Your task to perform on an android device: Open sound settings Image 0: 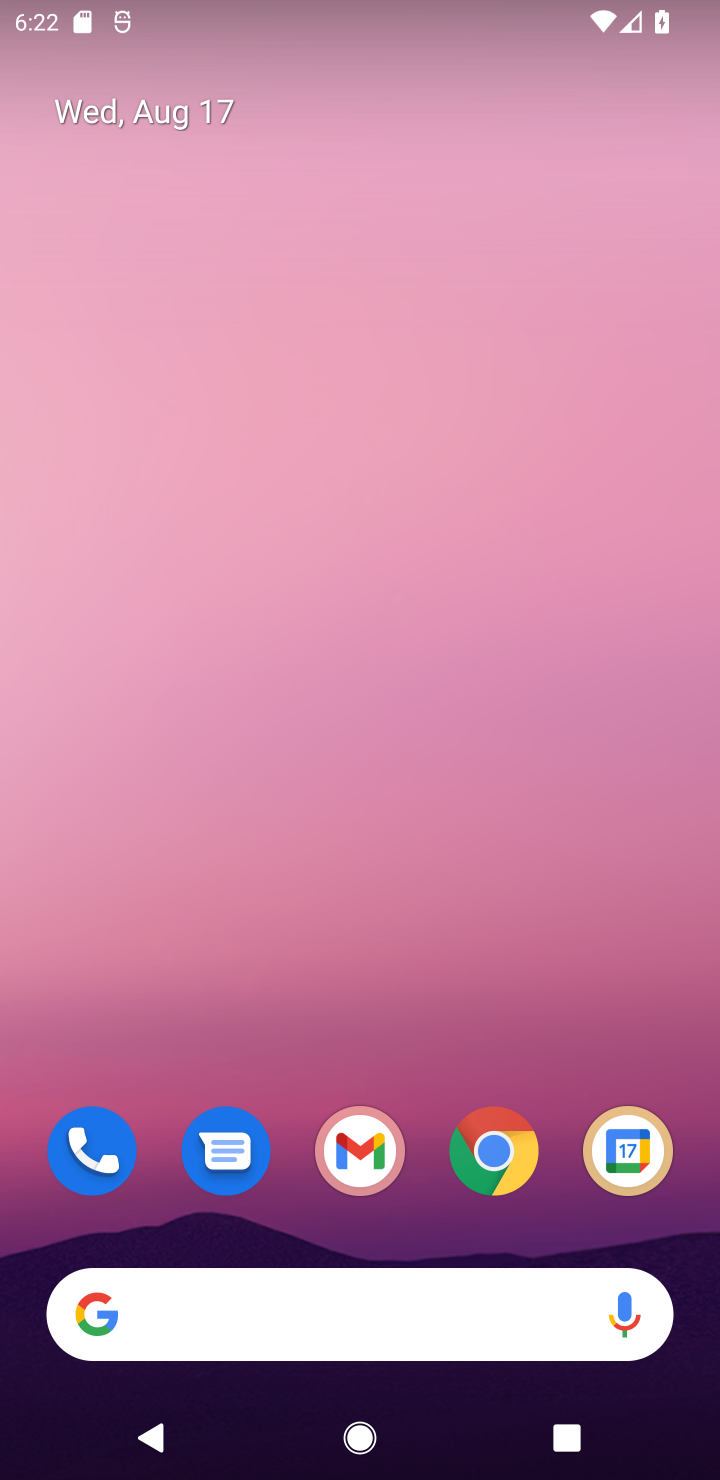
Step 0: drag from (422, 1206) to (399, 70)
Your task to perform on an android device: Open sound settings Image 1: 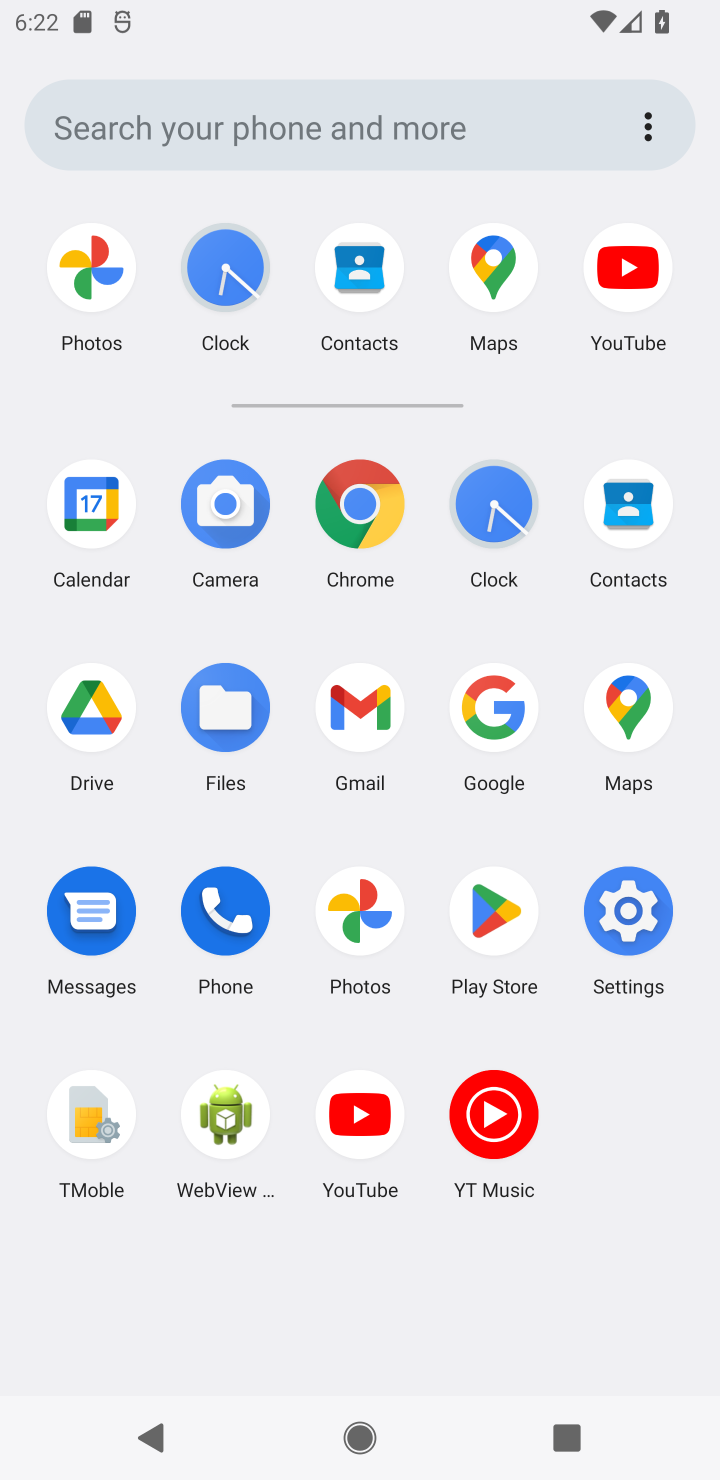
Step 1: click (661, 955)
Your task to perform on an android device: Open sound settings Image 2: 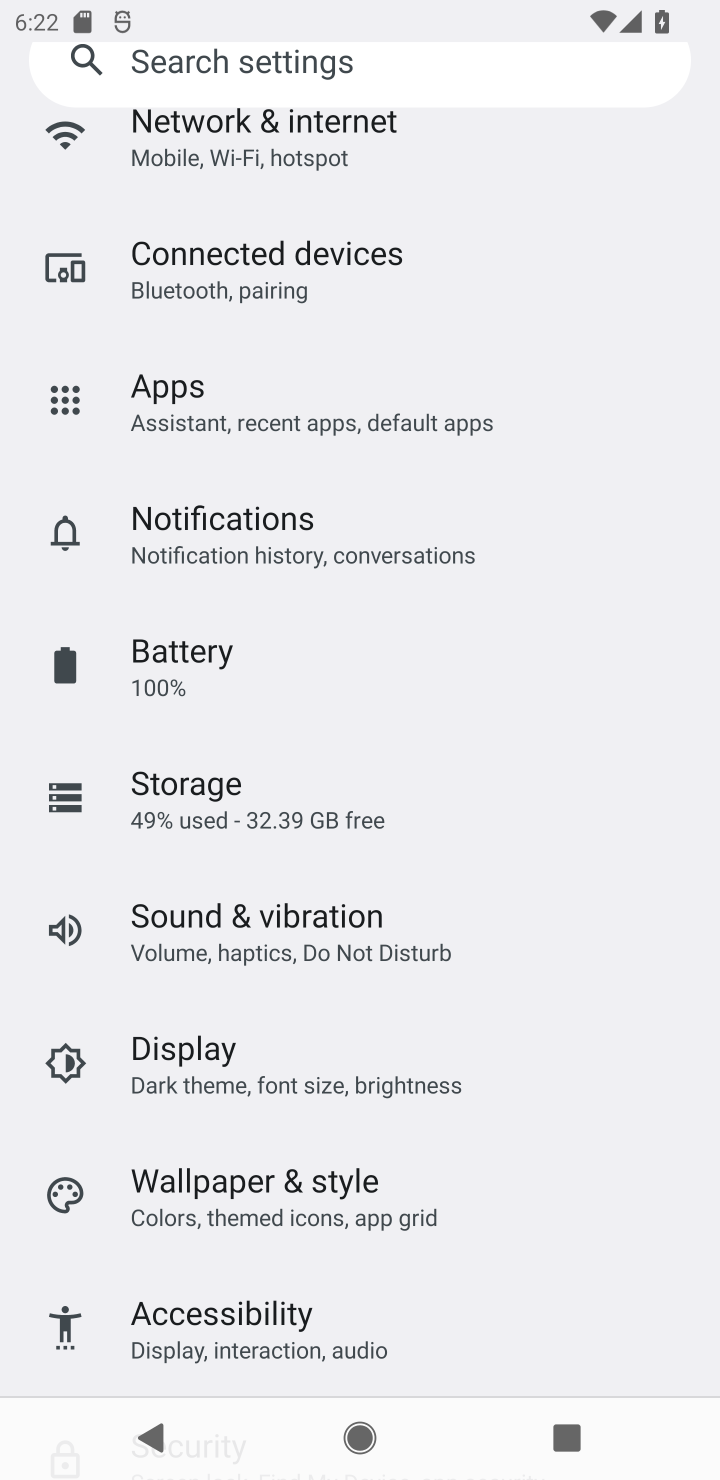
Step 2: click (238, 910)
Your task to perform on an android device: Open sound settings Image 3: 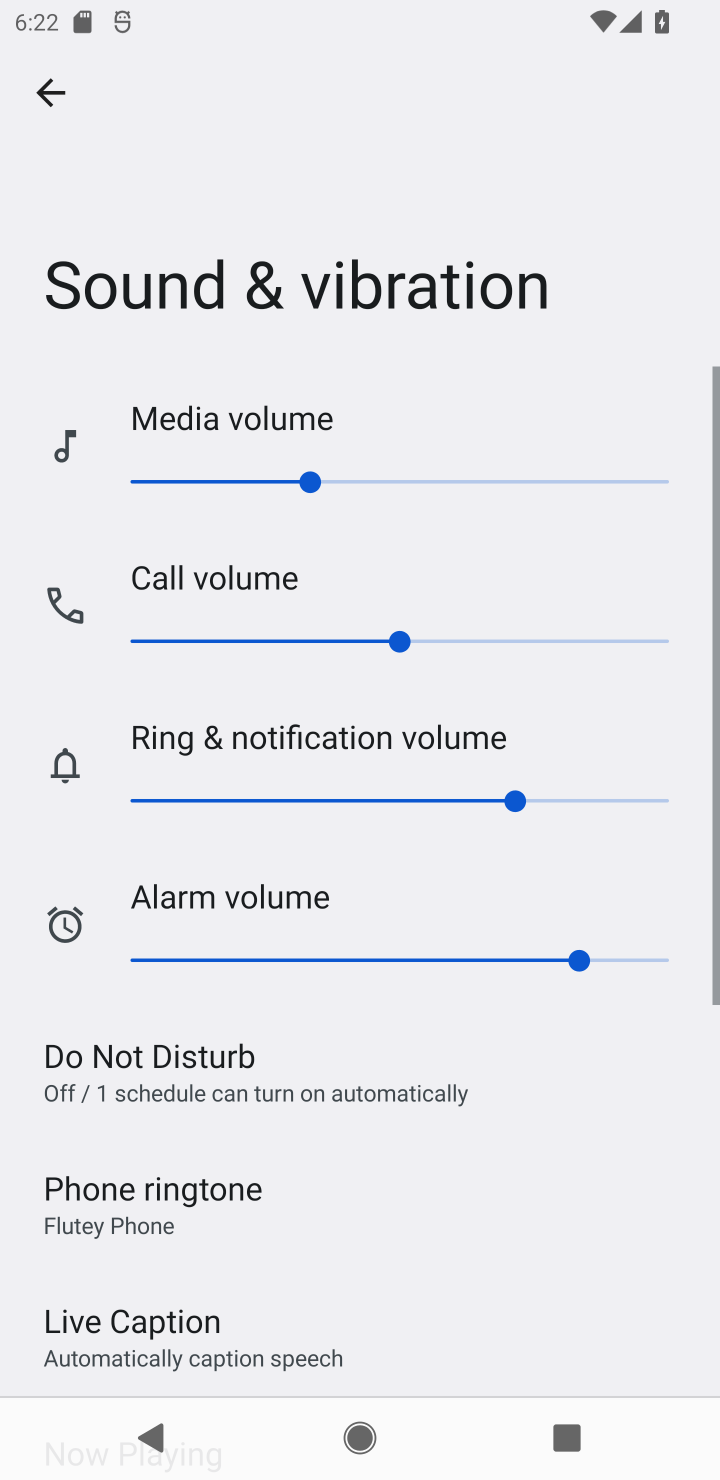
Step 3: task complete